Your task to perform on an android device: make emails show in primary in the gmail app Image 0: 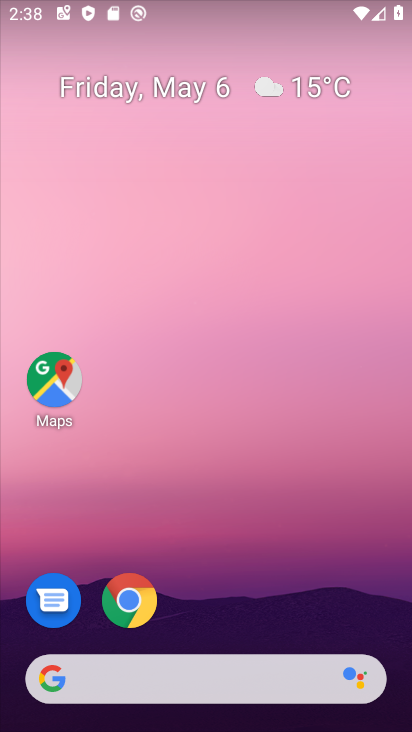
Step 0: drag from (303, 566) to (181, 2)
Your task to perform on an android device: make emails show in primary in the gmail app Image 1: 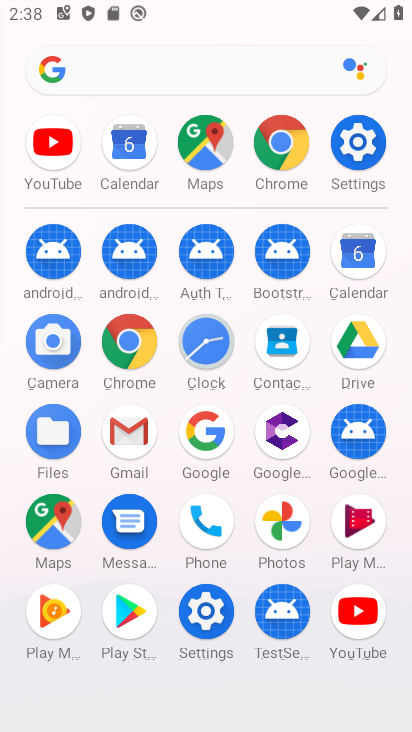
Step 1: drag from (7, 612) to (7, 317)
Your task to perform on an android device: make emails show in primary in the gmail app Image 2: 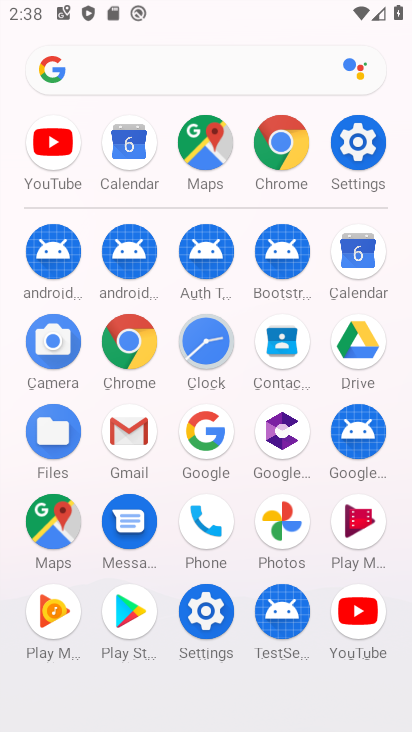
Step 2: drag from (4, 518) to (10, 228)
Your task to perform on an android device: make emails show in primary in the gmail app Image 3: 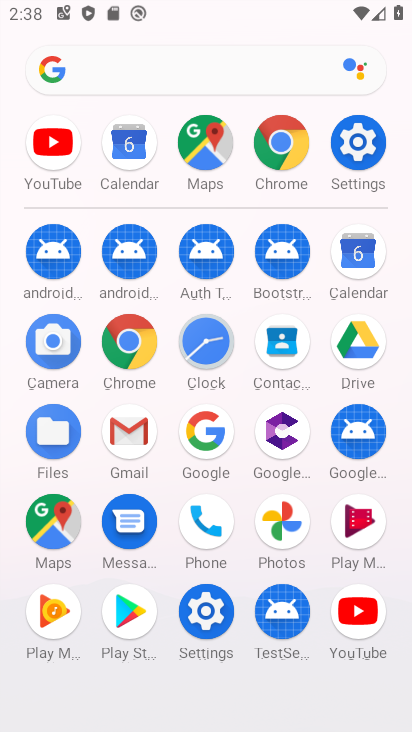
Step 3: click (129, 420)
Your task to perform on an android device: make emails show in primary in the gmail app Image 4: 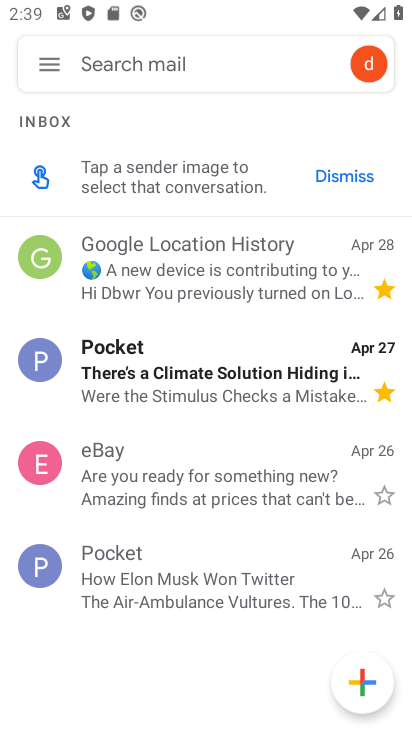
Step 4: click (37, 56)
Your task to perform on an android device: make emails show in primary in the gmail app Image 5: 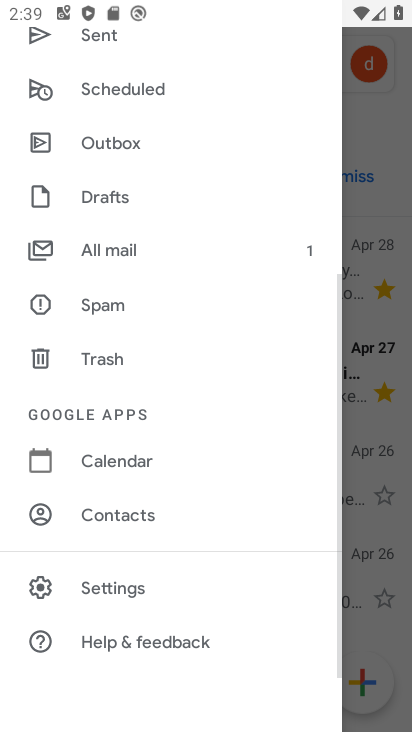
Step 5: drag from (208, 374) to (224, 592)
Your task to perform on an android device: make emails show in primary in the gmail app Image 6: 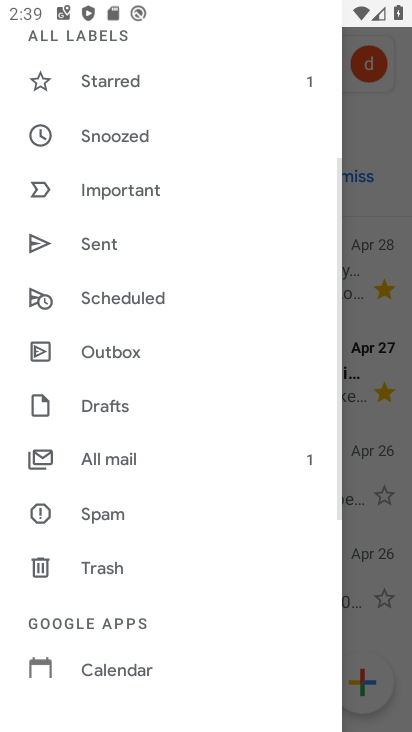
Step 6: drag from (219, 570) to (200, 111)
Your task to perform on an android device: make emails show in primary in the gmail app Image 7: 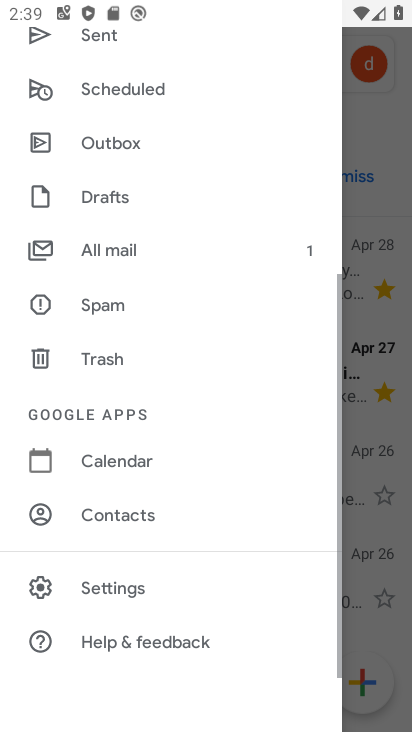
Step 7: click (117, 583)
Your task to perform on an android device: make emails show in primary in the gmail app Image 8: 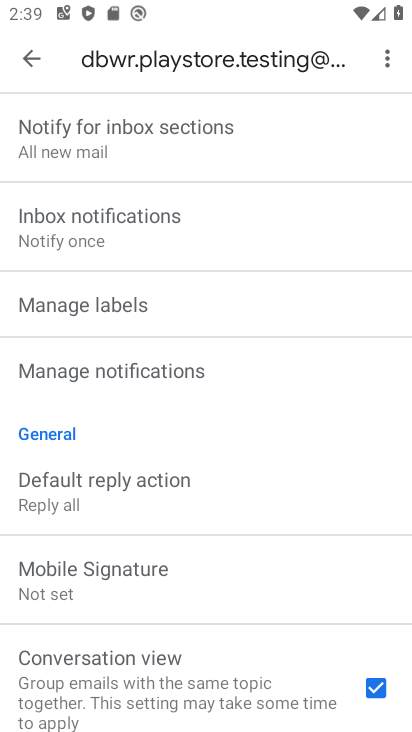
Step 8: drag from (195, 595) to (246, 125)
Your task to perform on an android device: make emails show in primary in the gmail app Image 9: 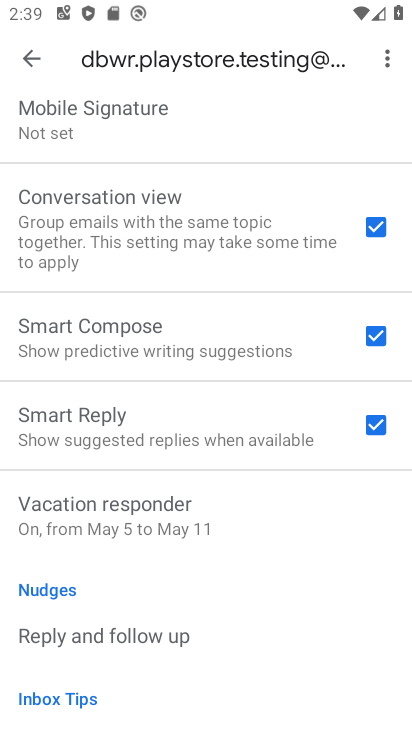
Step 9: drag from (187, 599) to (224, 163)
Your task to perform on an android device: make emails show in primary in the gmail app Image 10: 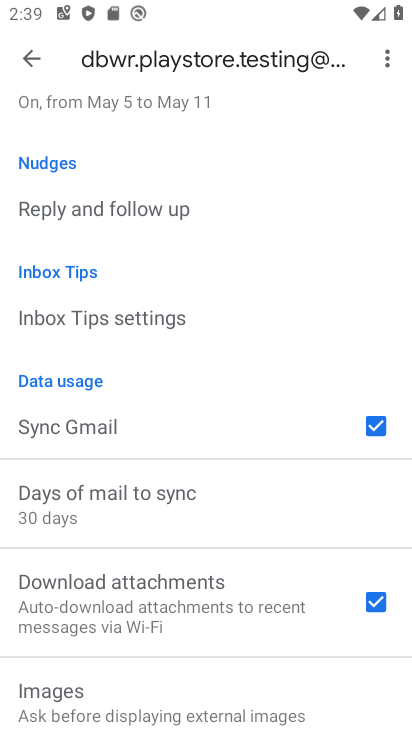
Step 10: drag from (185, 635) to (244, 139)
Your task to perform on an android device: make emails show in primary in the gmail app Image 11: 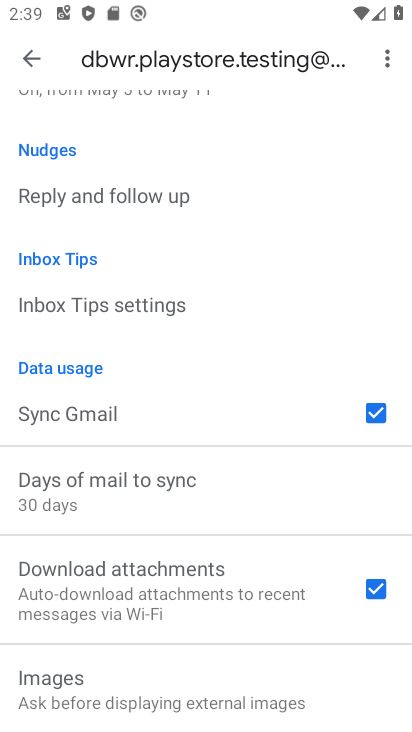
Step 11: drag from (230, 167) to (222, 641)
Your task to perform on an android device: make emails show in primary in the gmail app Image 12: 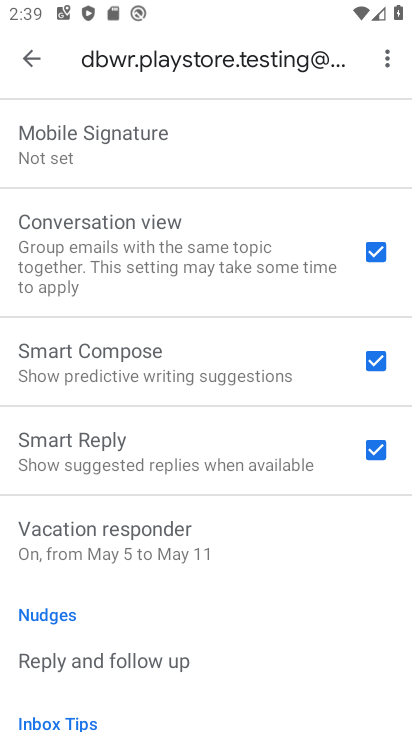
Step 12: drag from (171, 165) to (171, 634)
Your task to perform on an android device: make emails show in primary in the gmail app Image 13: 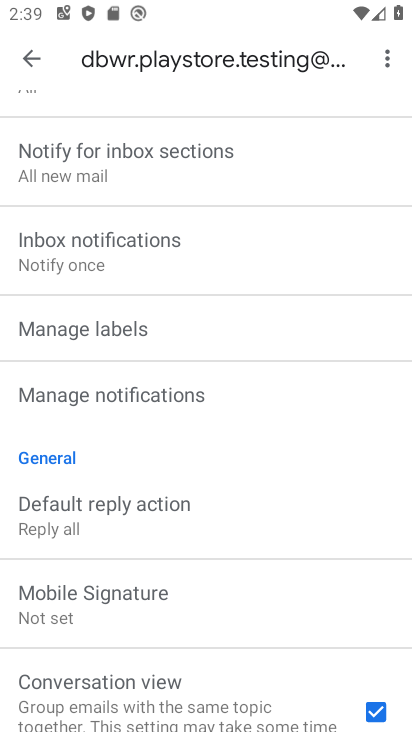
Step 13: drag from (198, 155) to (207, 584)
Your task to perform on an android device: make emails show in primary in the gmail app Image 14: 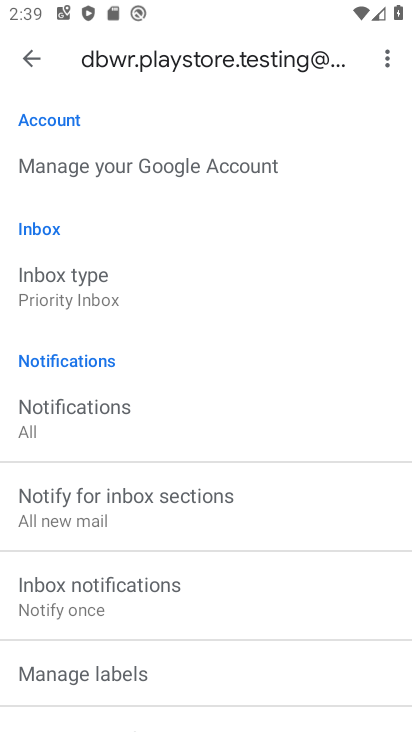
Step 14: click (108, 284)
Your task to perform on an android device: make emails show in primary in the gmail app Image 15: 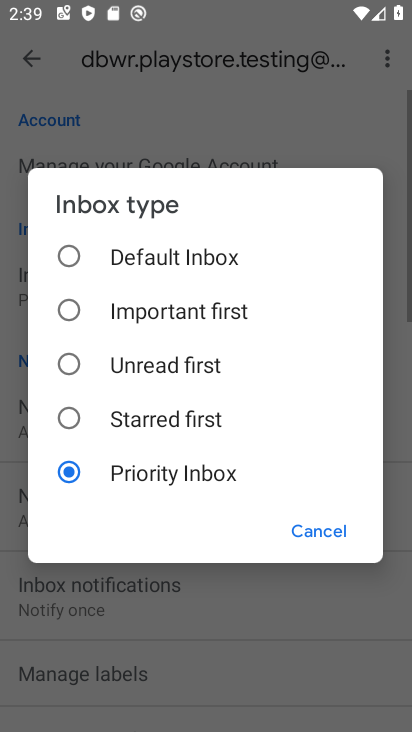
Step 15: click (135, 267)
Your task to perform on an android device: make emails show in primary in the gmail app Image 16: 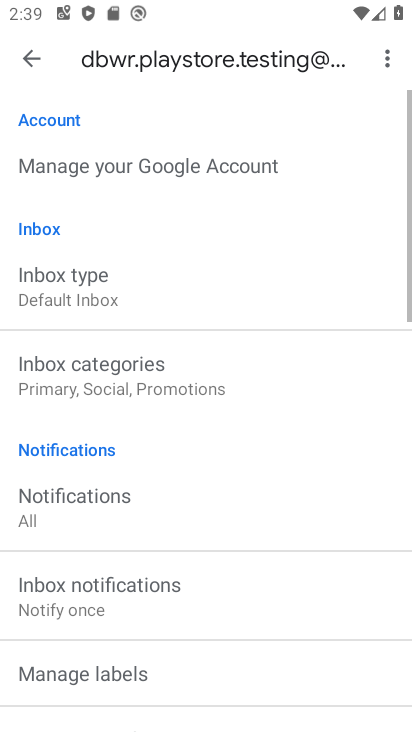
Step 16: click (148, 366)
Your task to perform on an android device: make emails show in primary in the gmail app Image 17: 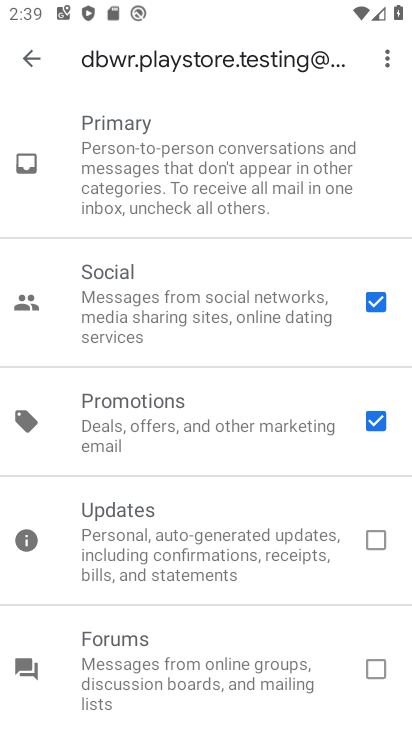
Step 17: click (371, 420)
Your task to perform on an android device: make emails show in primary in the gmail app Image 18: 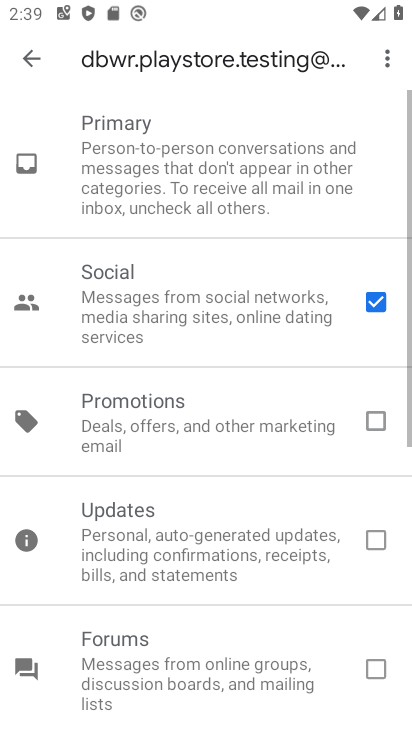
Step 18: click (384, 305)
Your task to perform on an android device: make emails show in primary in the gmail app Image 19: 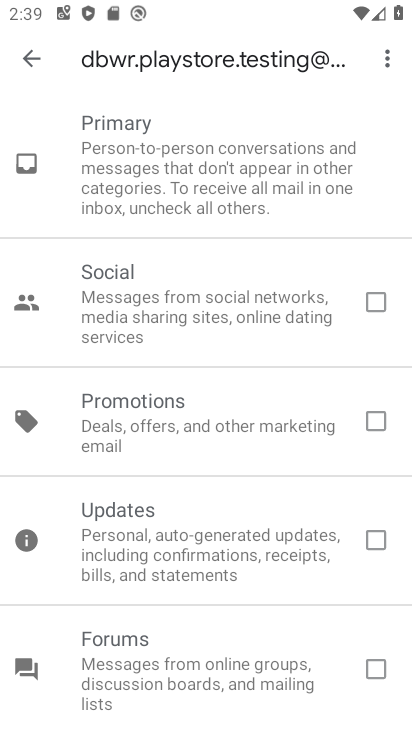
Step 19: click (43, 61)
Your task to perform on an android device: make emails show in primary in the gmail app Image 20: 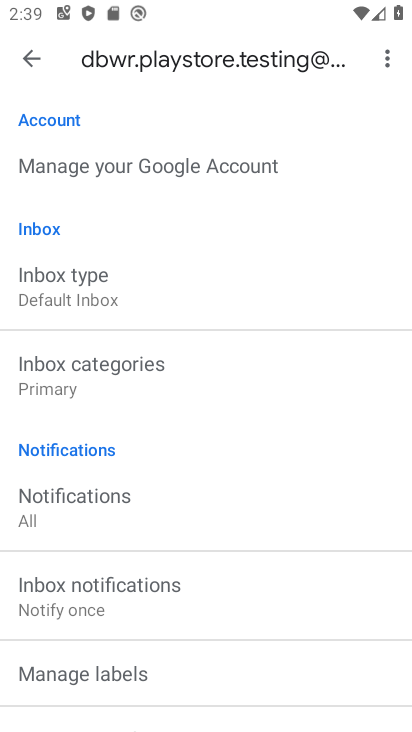
Step 20: task complete